Your task to perform on an android device: change alarm snooze length Image 0: 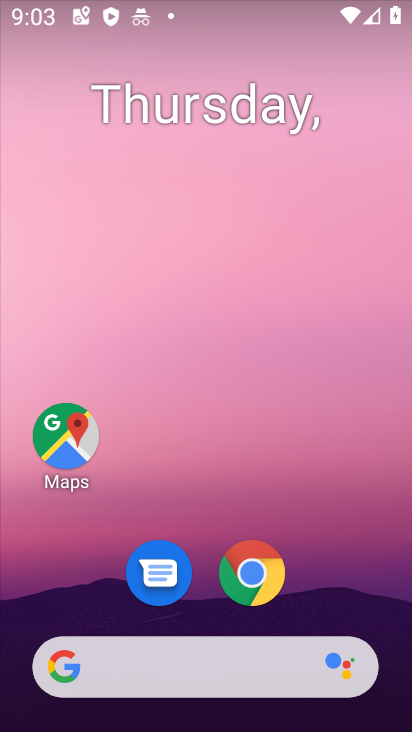
Step 0: drag from (374, 558) to (294, 252)
Your task to perform on an android device: change alarm snooze length Image 1: 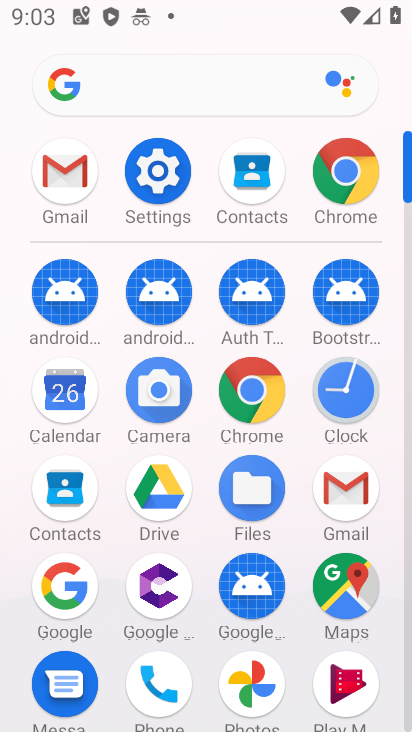
Step 1: click (337, 391)
Your task to perform on an android device: change alarm snooze length Image 2: 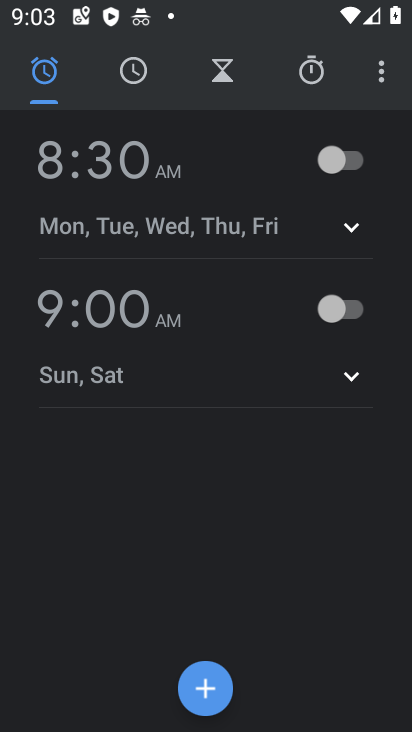
Step 2: drag from (369, 81) to (231, 140)
Your task to perform on an android device: change alarm snooze length Image 3: 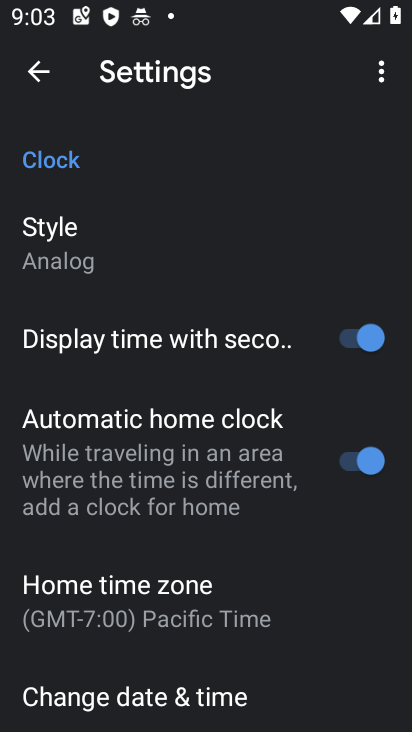
Step 3: drag from (291, 574) to (229, 272)
Your task to perform on an android device: change alarm snooze length Image 4: 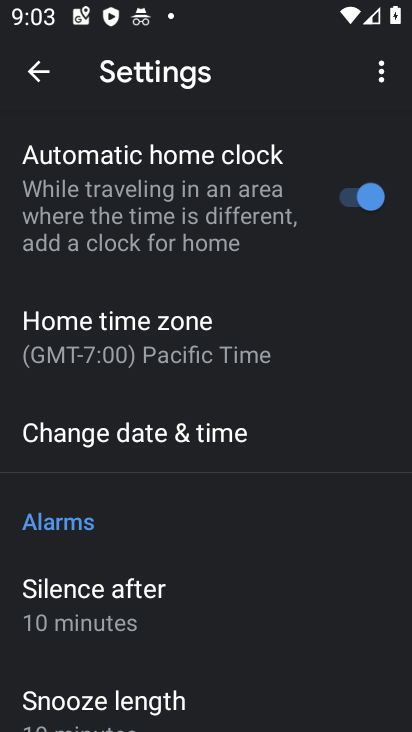
Step 4: drag from (234, 421) to (238, 288)
Your task to perform on an android device: change alarm snooze length Image 5: 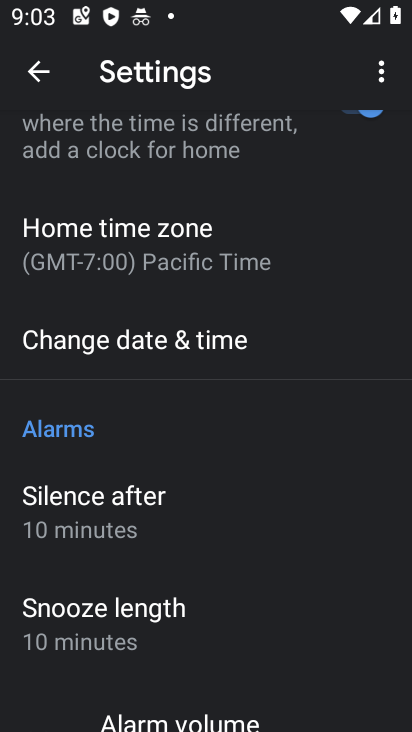
Step 5: click (192, 621)
Your task to perform on an android device: change alarm snooze length Image 6: 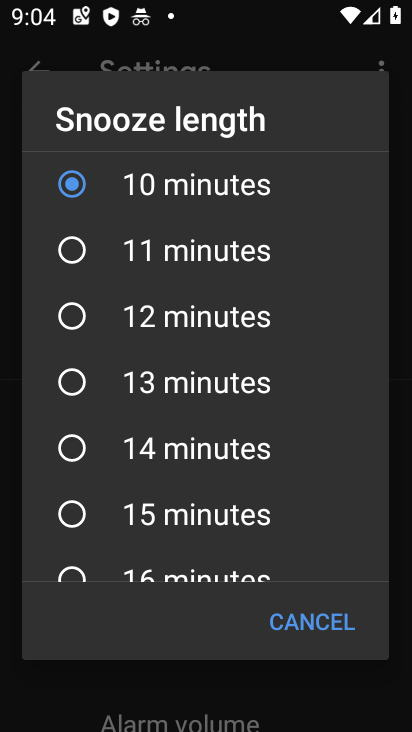
Step 6: click (176, 392)
Your task to perform on an android device: change alarm snooze length Image 7: 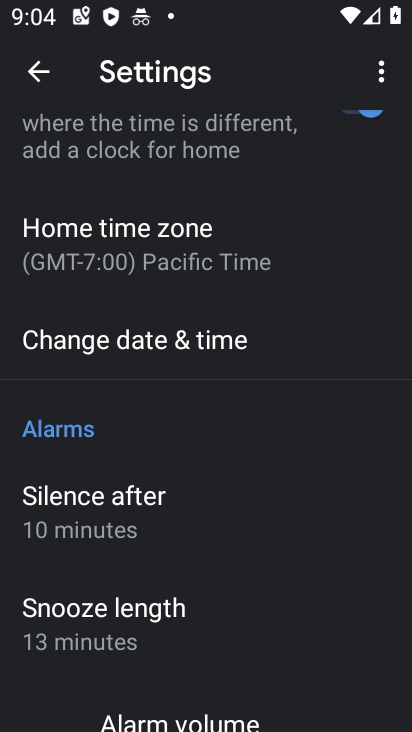
Step 7: task complete